Your task to perform on an android device: Open Google Chrome and open the bookmarks view Image 0: 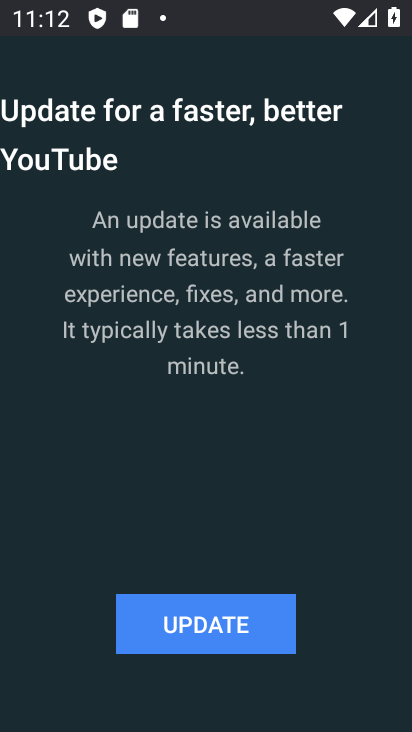
Step 0: press home button
Your task to perform on an android device: Open Google Chrome and open the bookmarks view Image 1: 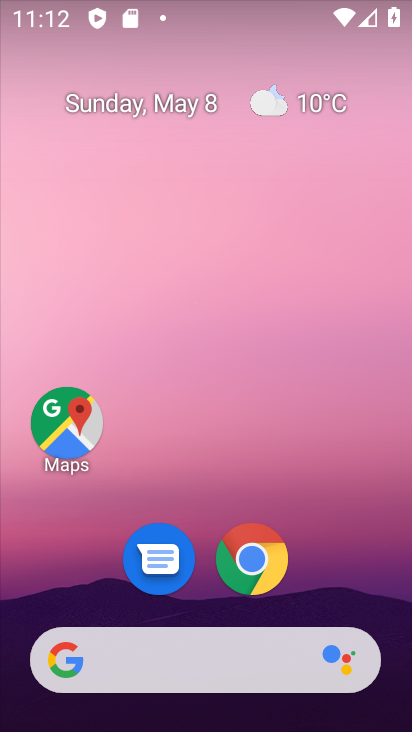
Step 1: click (264, 559)
Your task to perform on an android device: Open Google Chrome and open the bookmarks view Image 2: 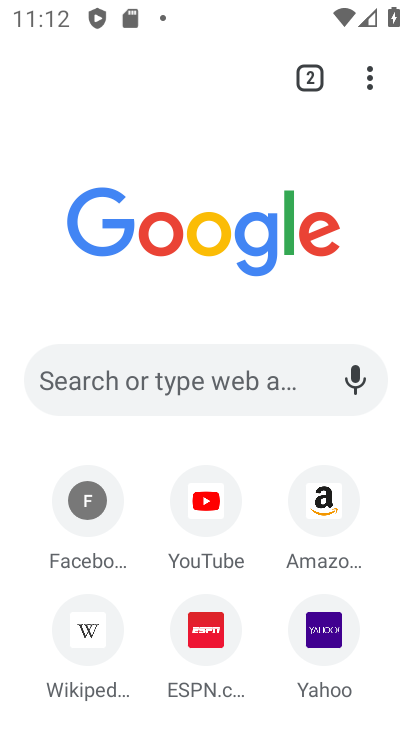
Step 2: click (367, 79)
Your task to perform on an android device: Open Google Chrome and open the bookmarks view Image 3: 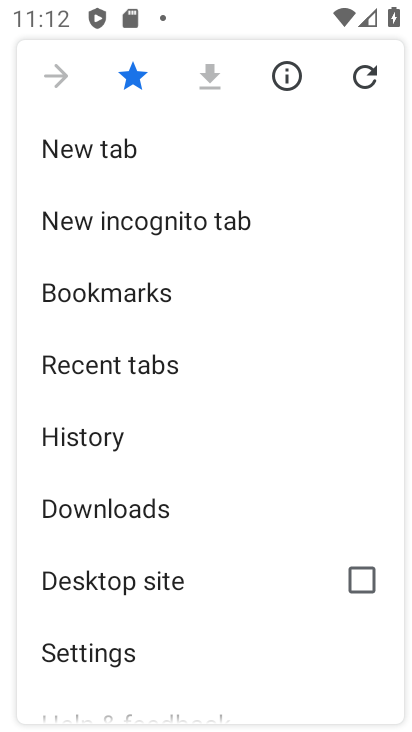
Step 3: click (147, 299)
Your task to perform on an android device: Open Google Chrome and open the bookmarks view Image 4: 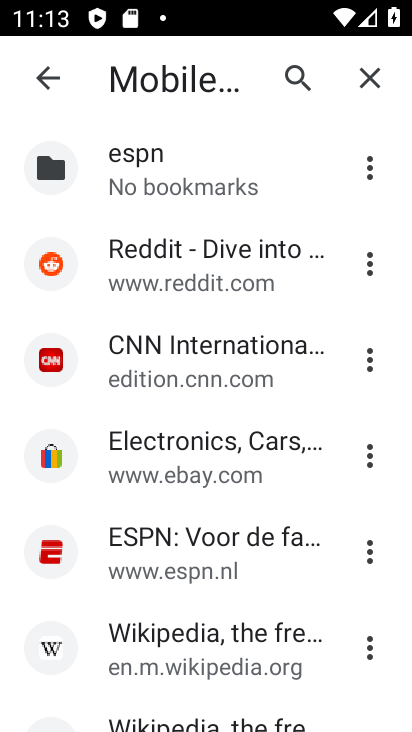
Step 4: task complete